Your task to perform on an android device: find which apps use the phone's location Image 0: 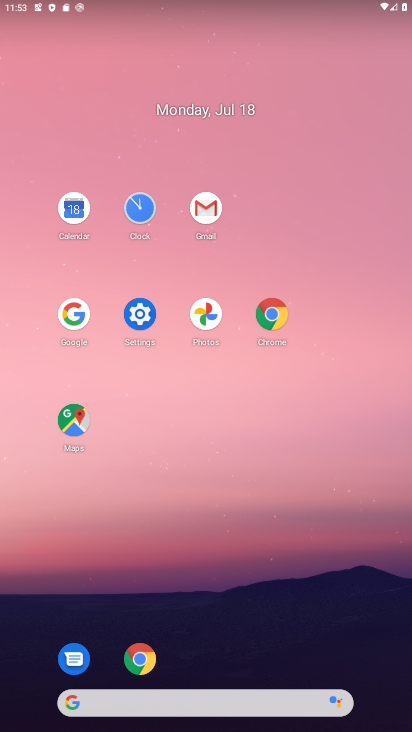
Step 0: click (142, 312)
Your task to perform on an android device: find which apps use the phone's location Image 1: 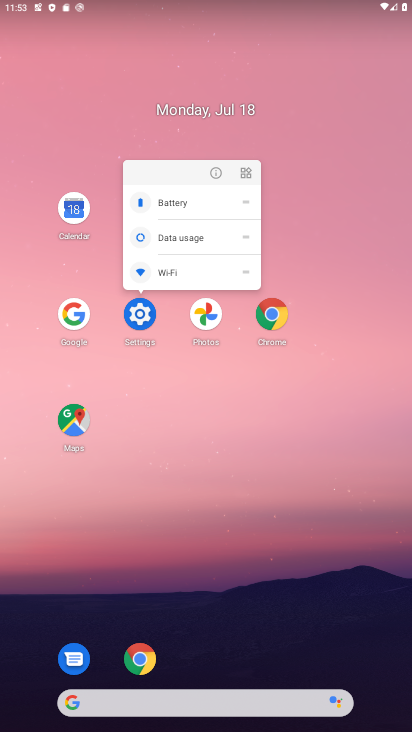
Step 1: click (127, 324)
Your task to perform on an android device: find which apps use the phone's location Image 2: 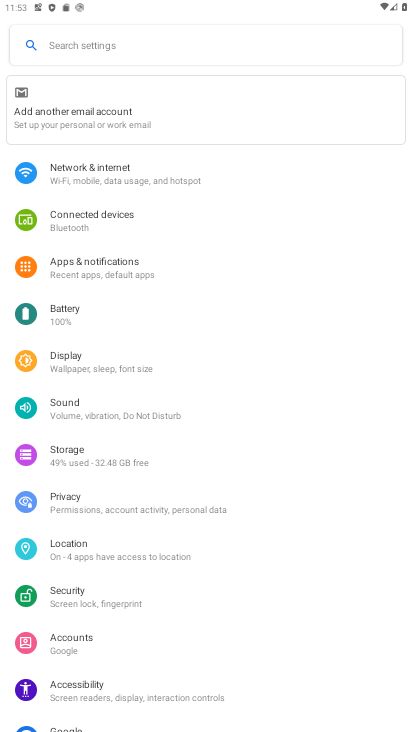
Step 2: click (131, 555)
Your task to perform on an android device: find which apps use the phone's location Image 3: 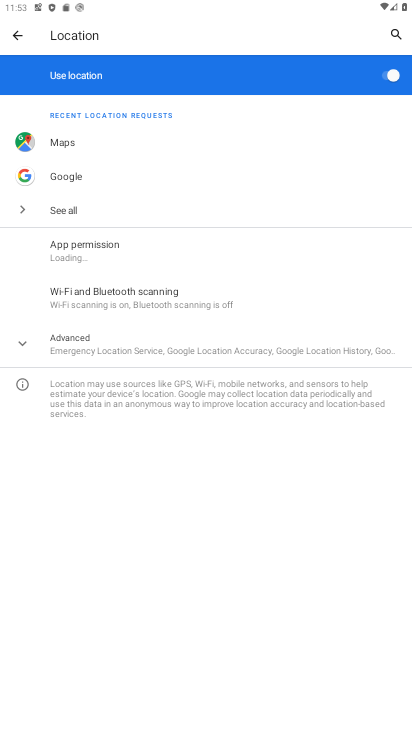
Step 3: task complete